Your task to perform on an android device: open app "DoorDash - Food Delivery" (install if not already installed) Image 0: 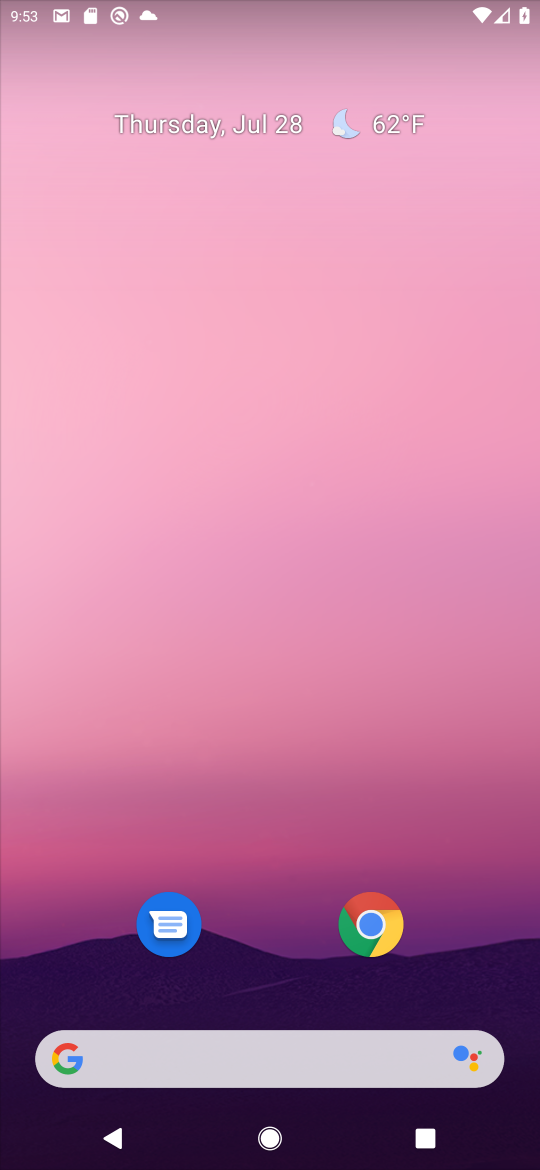
Step 0: drag from (227, 957) to (242, 111)
Your task to perform on an android device: open app "DoorDash - Food Delivery" (install if not already installed) Image 1: 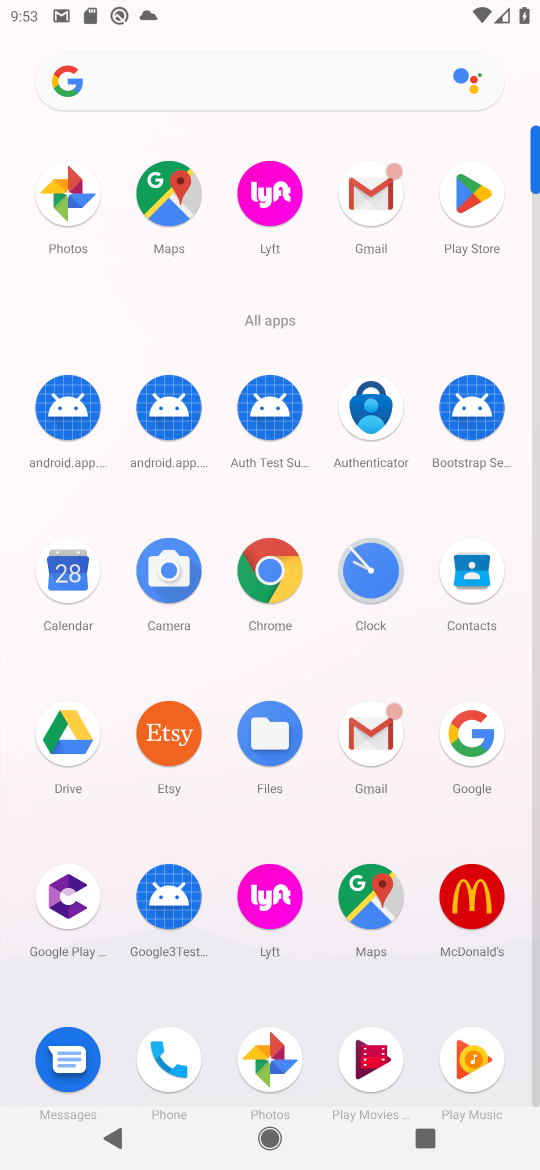
Step 1: click (468, 196)
Your task to perform on an android device: open app "DoorDash - Food Delivery" (install if not already installed) Image 2: 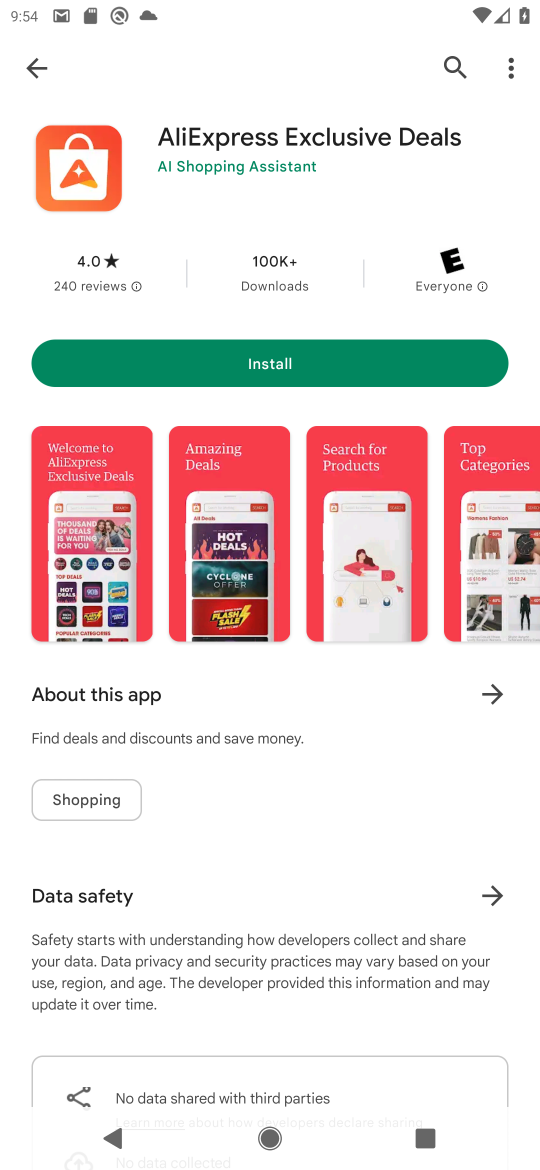
Step 2: click (445, 68)
Your task to perform on an android device: open app "DoorDash - Food Delivery" (install if not already installed) Image 3: 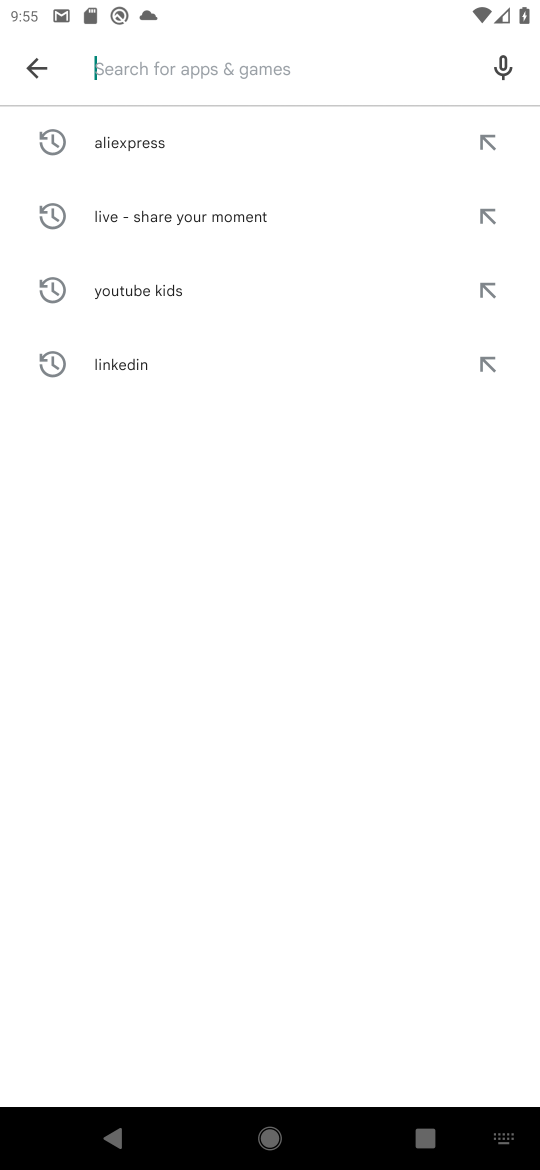
Step 3: type "DoorDash - Food Delivery"
Your task to perform on an android device: open app "DoorDash - Food Delivery" (install if not already installed) Image 4: 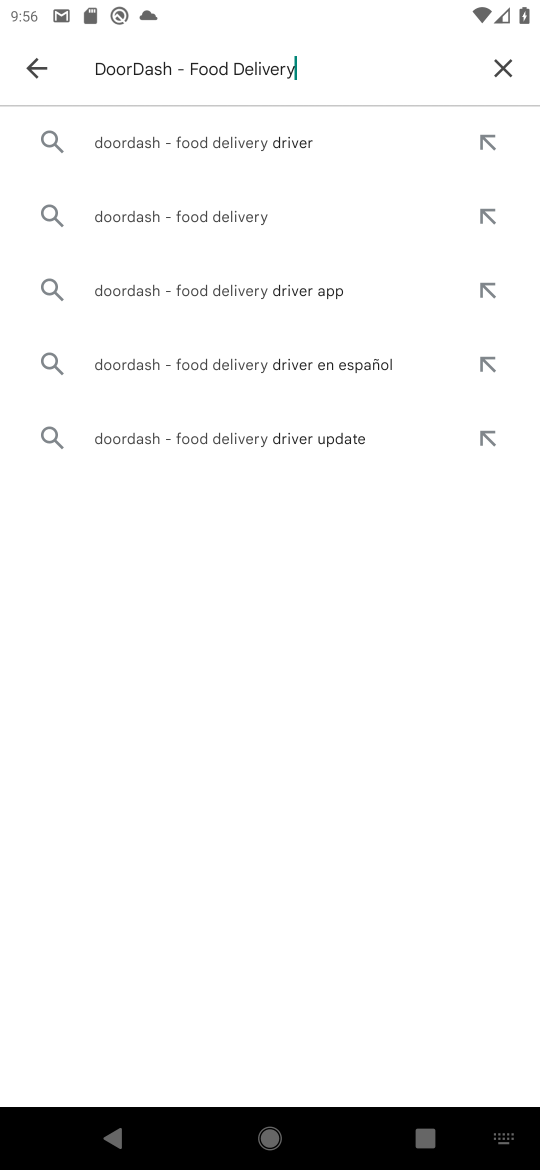
Step 4: click (196, 143)
Your task to perform on an android device: open app "DoorDash - Food Delivery" (install if not already installed) Image 5: 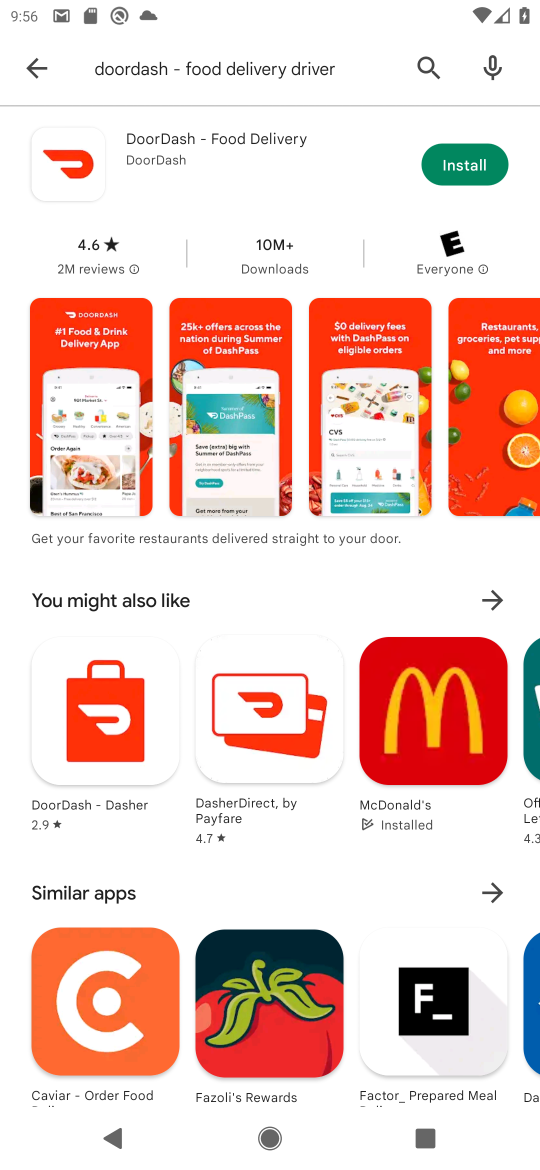
Step 5: click (458, 174)
Your task to perform on an android device: open app "DoorDash - Food Delivery" (install if not already installed) Image 6: 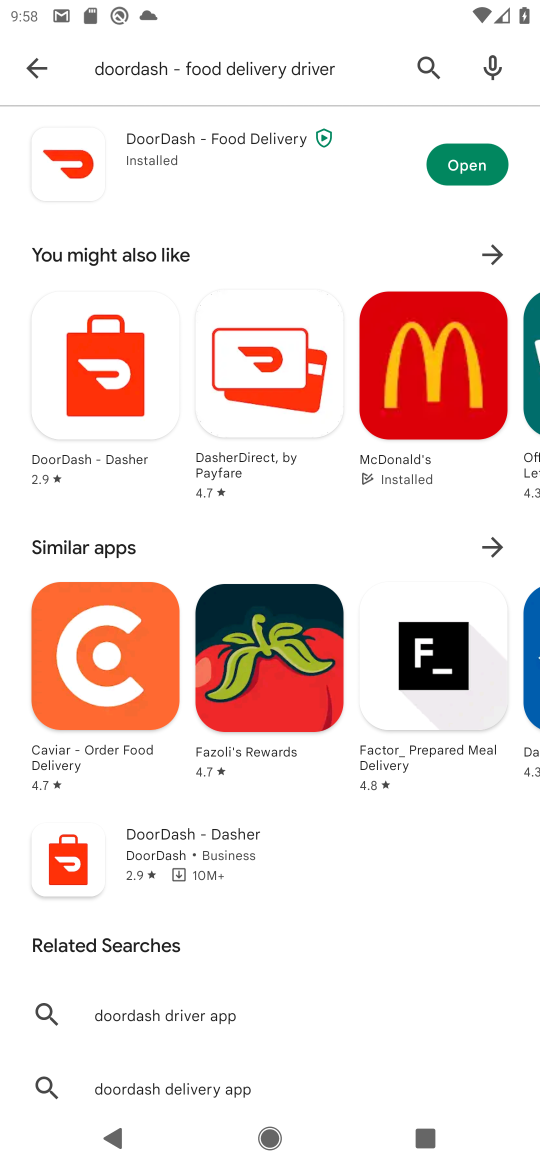
Step 6: click (484, 159)
Your task to perform on an android device: open app "DoorDash - Food Delivery" (install if not already installed) Image 7: 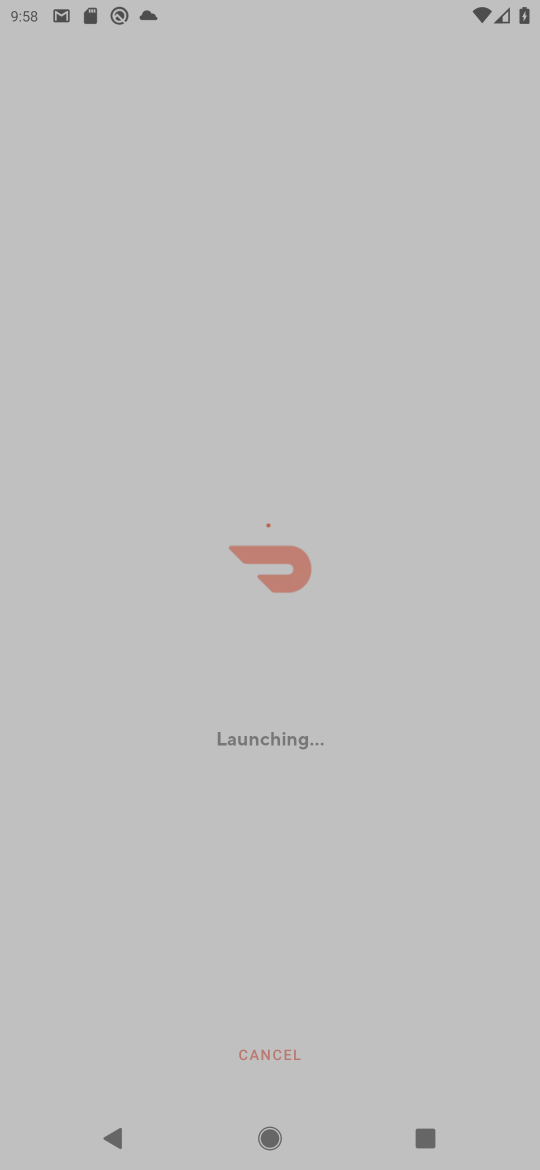
Step 7: task complete